Your task to perform on an android device: change text size in settings app Image 0: 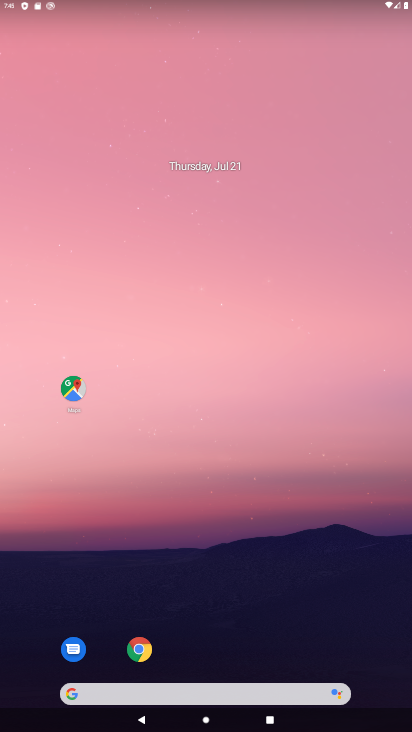
Step 0: drag from (304, 667) to (175, 0)
Your task to perform on an android device: change text size in settings app Image 1: 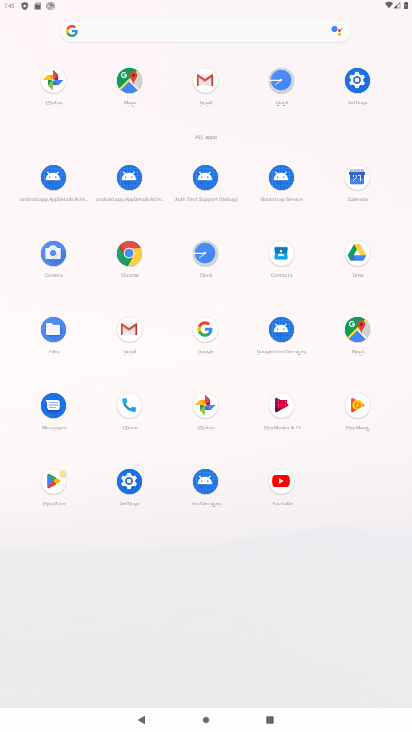
Step 1: click (354, 86)
Your task to perform on an android device: change text size in settings app Image 2: 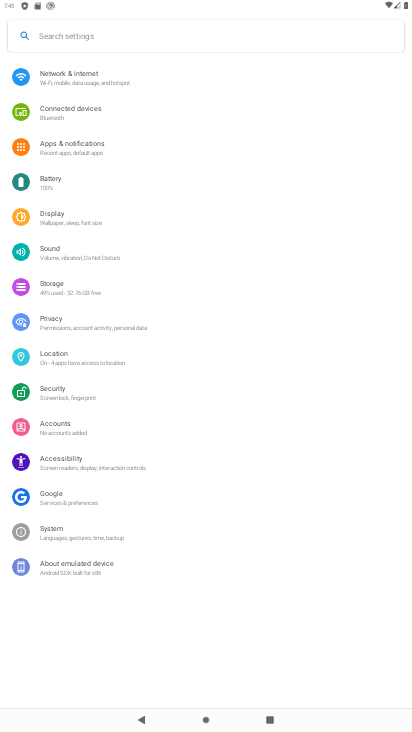
Step 2: click (112, 220)
Your task to perform on an android device: change text size in settings app Image 3: 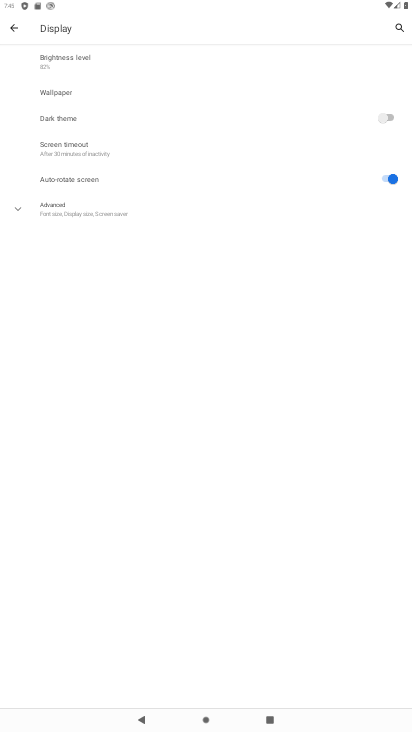
Step 3: click (138, 203)
Your task to perform on an android device: change text size in settings app Image 4: 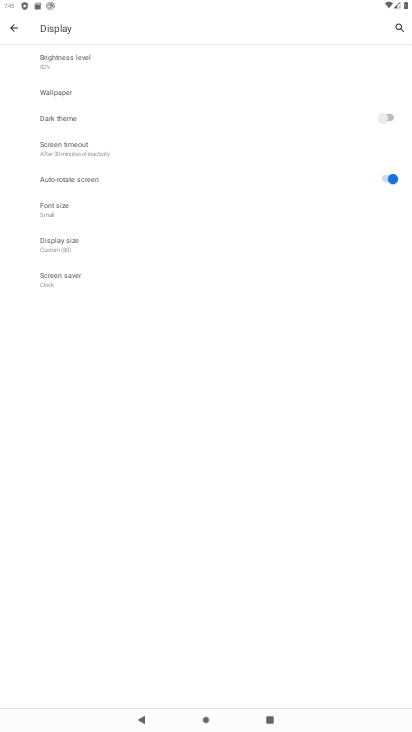
Step 4: click (128, 220)
Your task to perform on an android device: change text size in settings app Image 5: 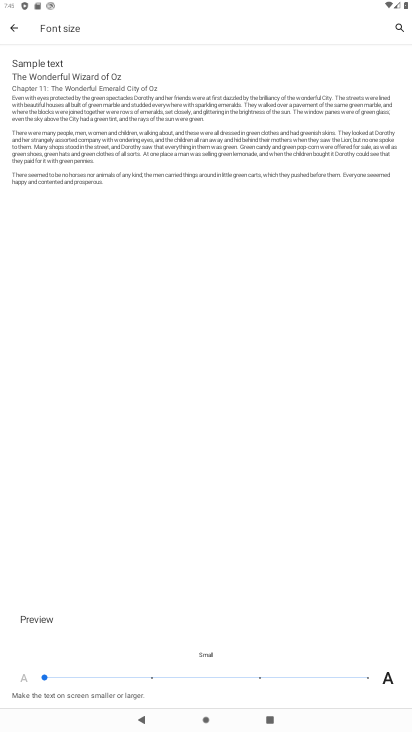
Step 5: click (155, 676)
Your task to perform on an android device: change text size in settings app Image 6: 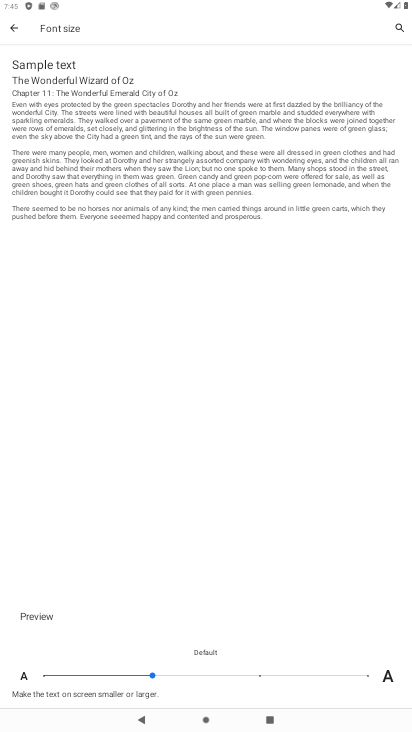
Step 6: click (252, 676)
Your task to perform on an android device: change text size in settings app Image 7: 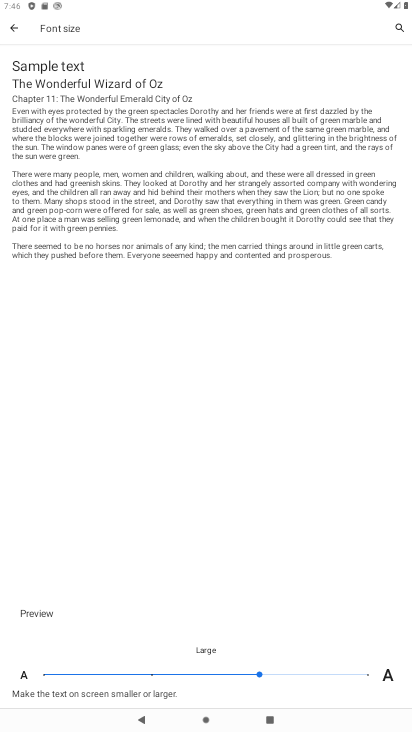
Step 7: task complete